Your task to perform on an android device: toggle location history Image 0: 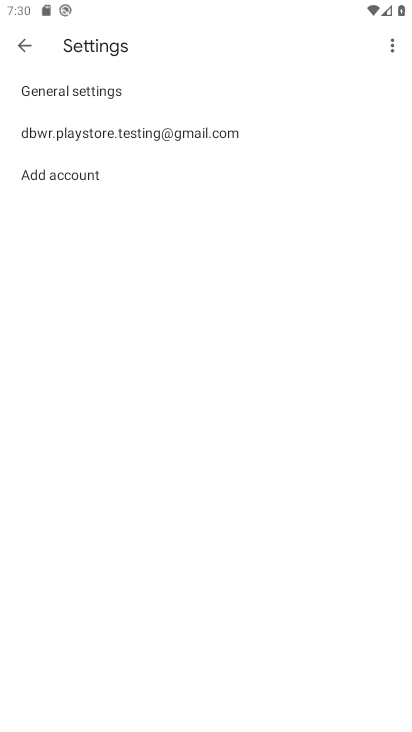
Step 0: press back button
Your task to perform on an android device: toggle location history Image 1: 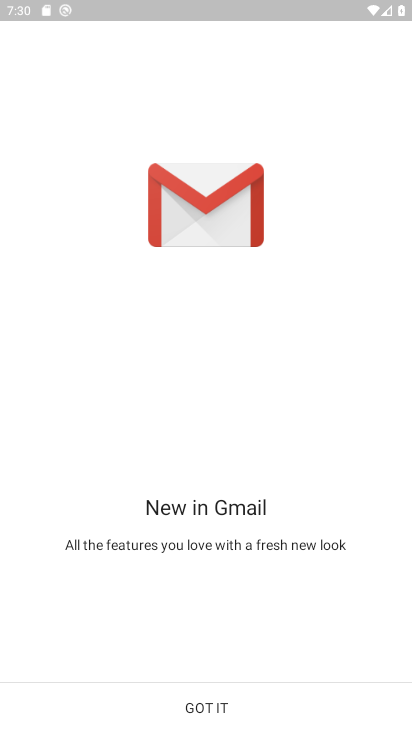
Step 1: press back button
Your task to perform on an android device: toggle location history Image 2: 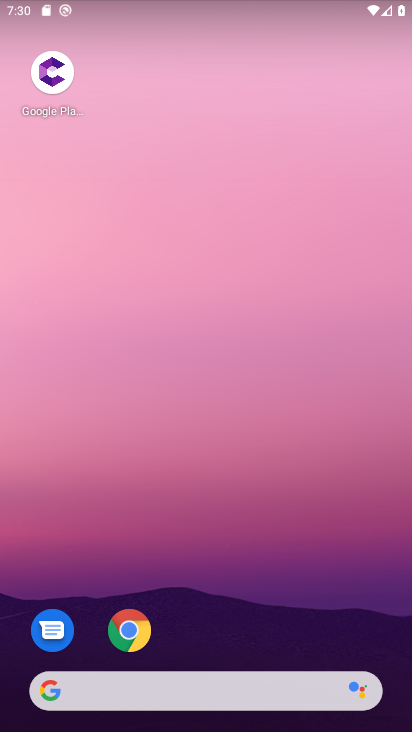
Step 2: drag from (258, 620) to (241, 200)
Your task to perform on an android device: toggle location history Image 3: 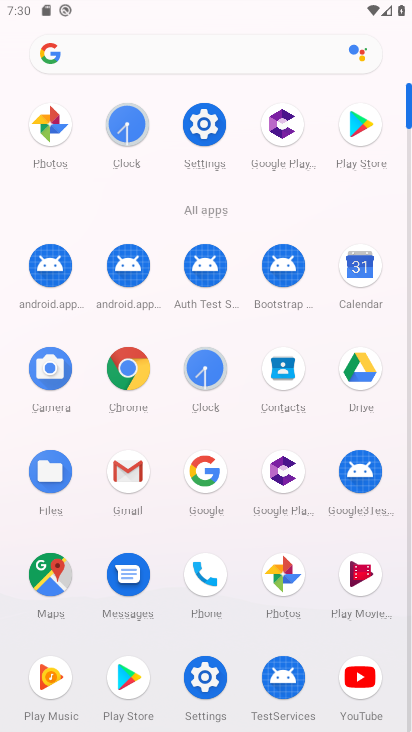
Step 3: click (205, 123)
Your task to perform on an android device: toggle location history Image 4: 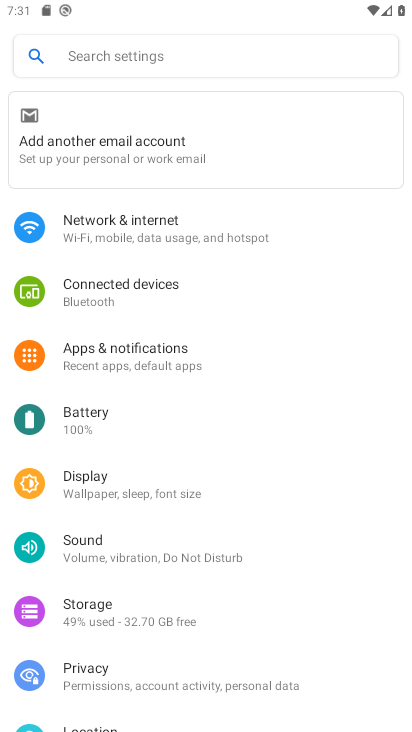
Step 4: drag from (150, 468) to (192, 351)
Your task to perform on an android device: toggle location history Image 5: 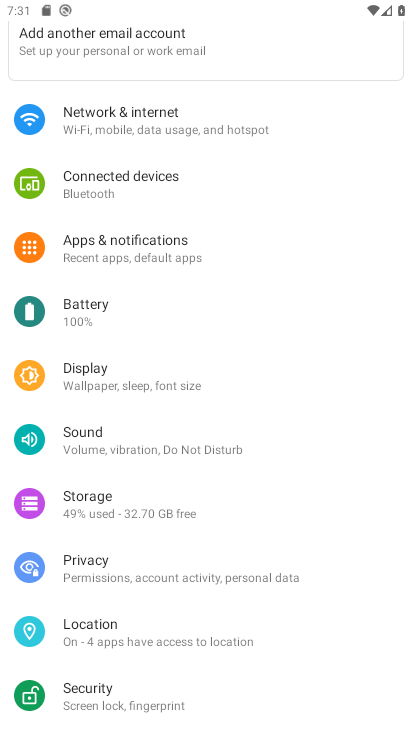
Step 5: drag from (126, 588) to (200, 502)
Your task to perform on an android device: toggle location history Image 6: 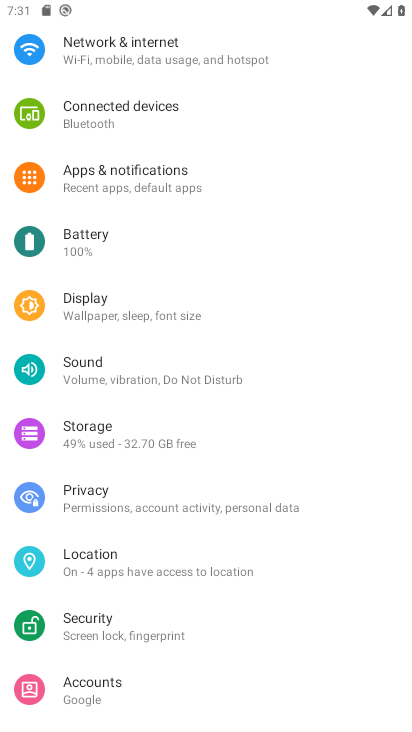
Step 6: click (198, 578)
Your task to perform on an android device: toggle location history Image 7: 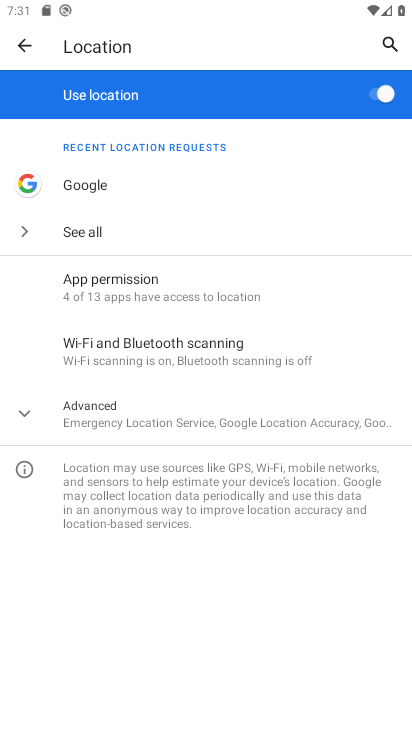
Step 7: click (182, 423)
Your task to perform on an android device: toggle location history Image 8: 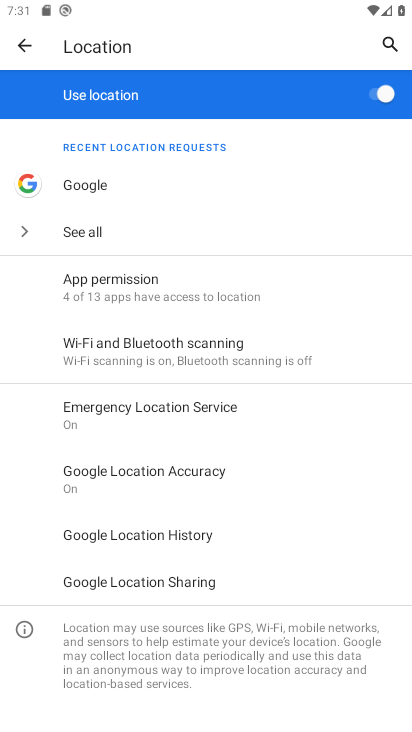
Step 8: drag from (152, 551) to (198, 454)
Your task to perform on an android device: toggle location history Image 9: 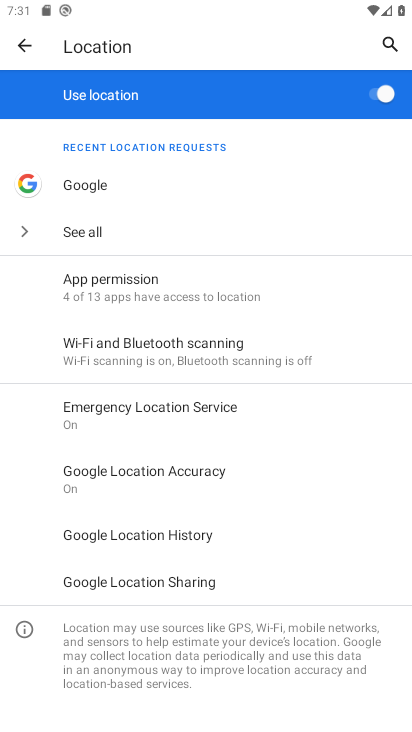
Step 9: click (184, 534)
Your task to perform on an android device: toggle location history Image 10: 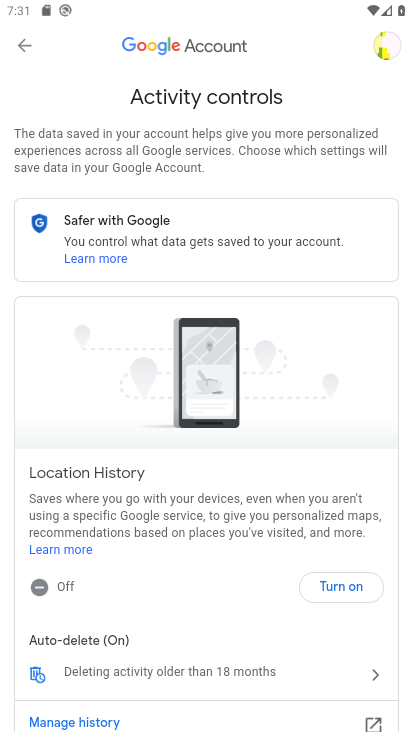
Step 10: click (341, 585)
Your task to perform on an android device: toggle location history Image 11: 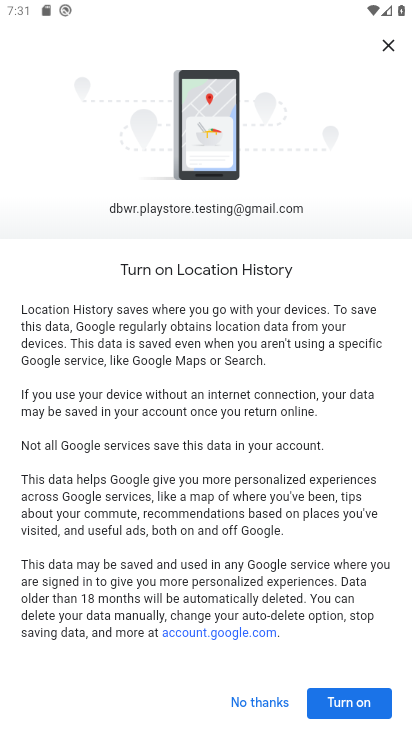
Step 11: click (345, 704)
Your task to perform on an android device: toggle location history Image 12: 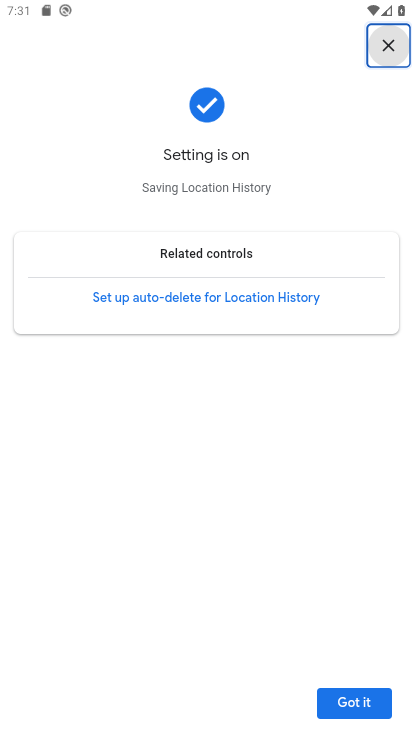
Step 12: click (345, 704)
Your task to perform on an android device: toggle location history Image 13: 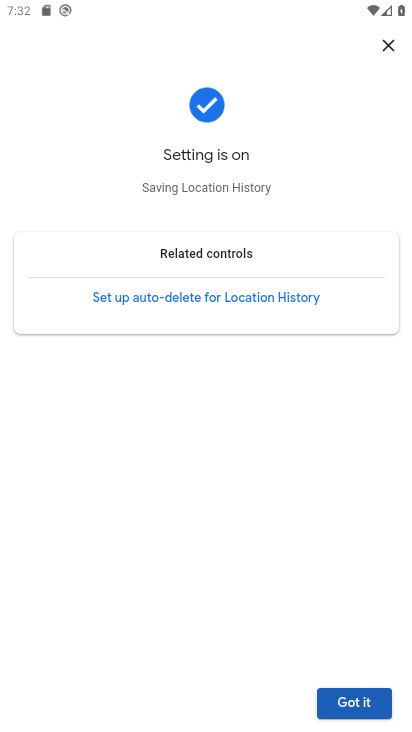
Step 13: click (345, 704)
Your task to perform on an android device: toggle location history Image 14: 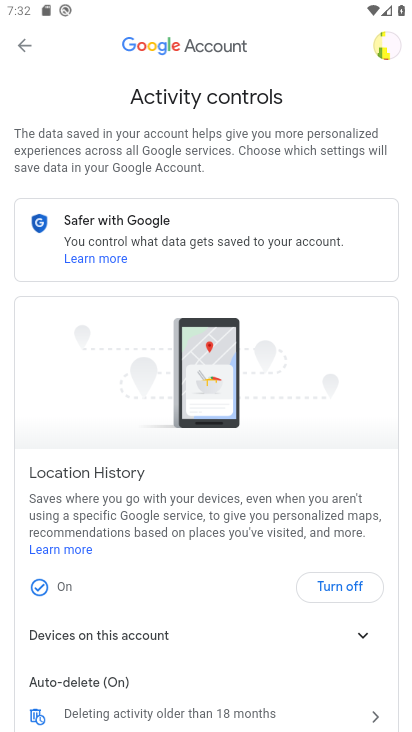
Step 14: task complete